Your task to perform on an android device: turn notification dots on Image 0: 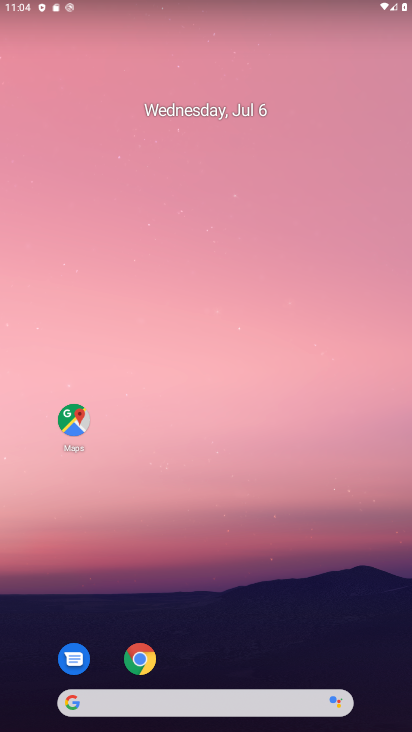
Step 0: drag from (233, 640) to (233, 92)
Your task to perform on an android device: turn notification dots on Image 1: 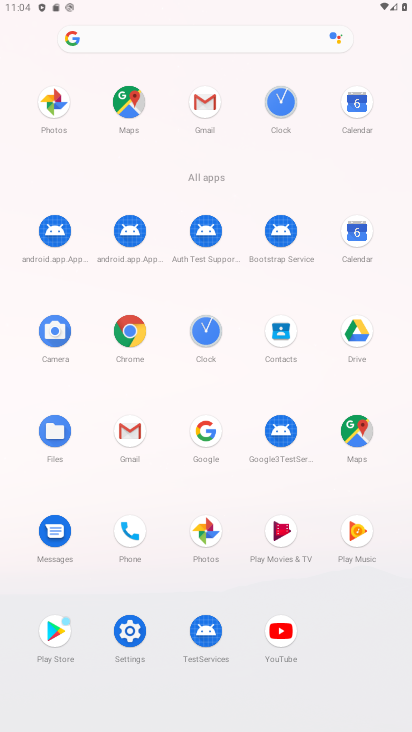
Step 1: click (131, 636)
Your task to perform on an android device: turn notification dots on Image 2: 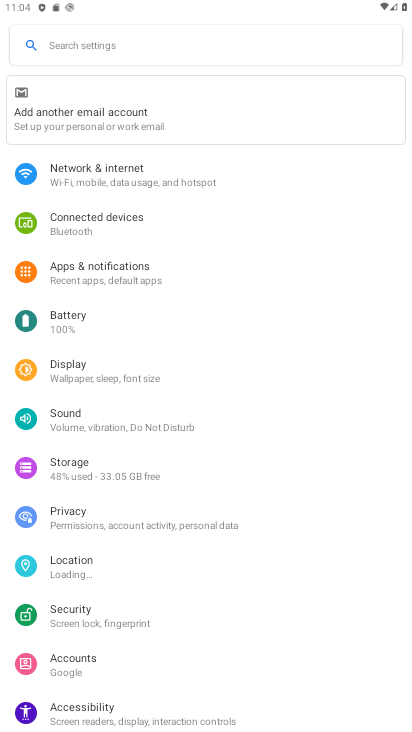
Step 2: drag from (210, 648) to (181, 188)
Your task to perform on an android device: turn notification dots on Image 3: 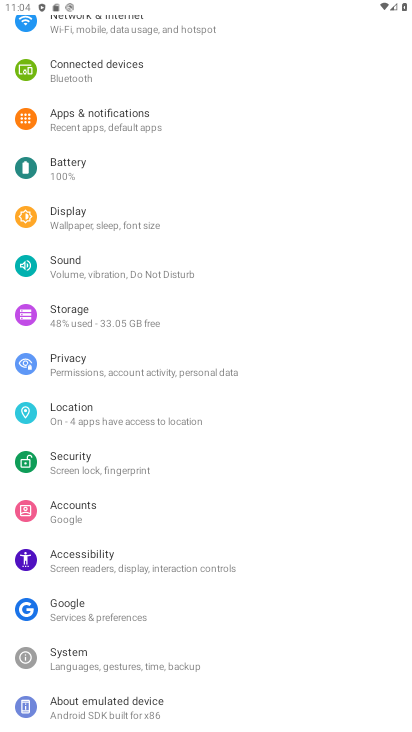
Step 3: drag from (189, 119) to (141, 587)
Your task to perform on an android device: turn notification dots on Image 4: 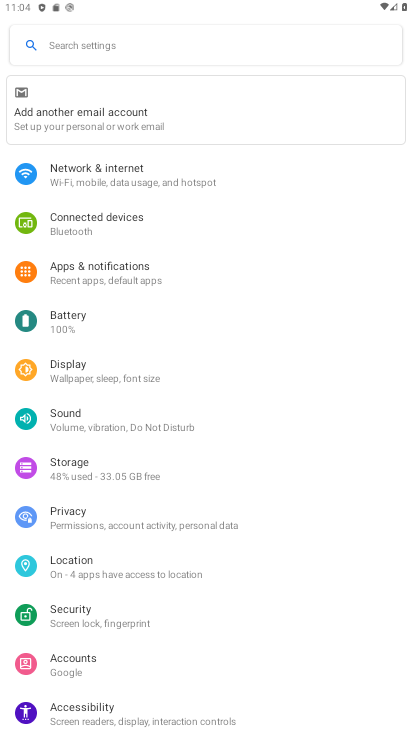
Step 4: click (80, 279)
Your task to perform on an android device: turn notification dots on Image 5: 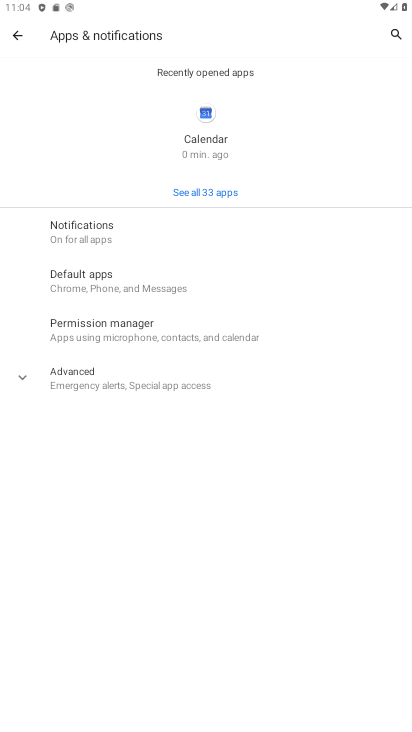
Step 5: click (69, 233)
Your task to perform on an android device: turn notification dots on Image 6: 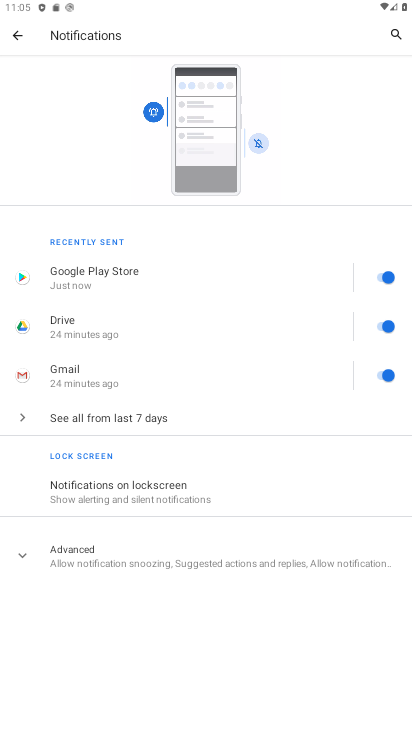
Step 6: click (176, 489)
Your task to perform on an android device: turn notification dots on Image 7: 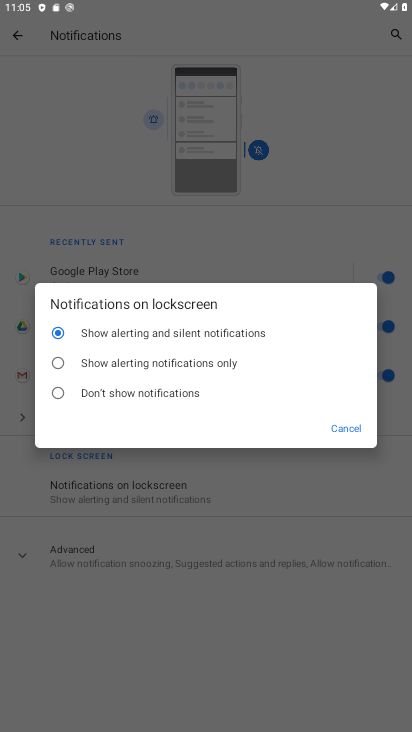
Step 7: click (142, 579)
Your task to perform on an android device: turn notification dots on Image 8: 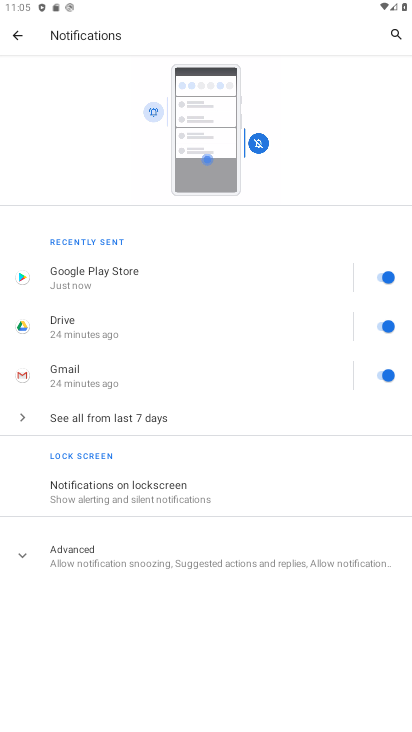
Step 8: click (106, 573)
Your task to perform on an android device: turn notification dots on Image 9: 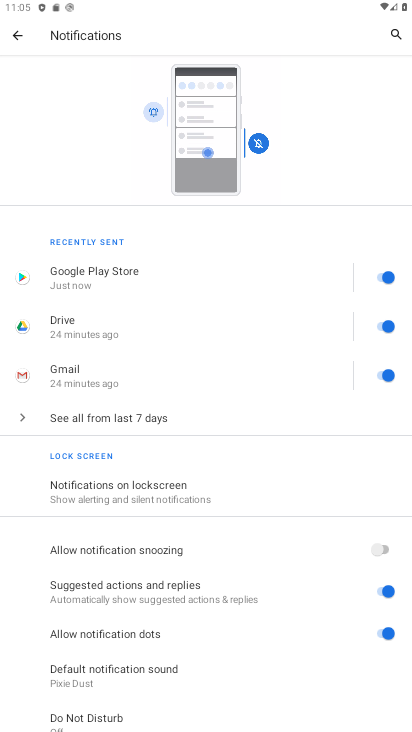
Step 9: task complete